Your task to perform on an android device: Check the weather Image 0: 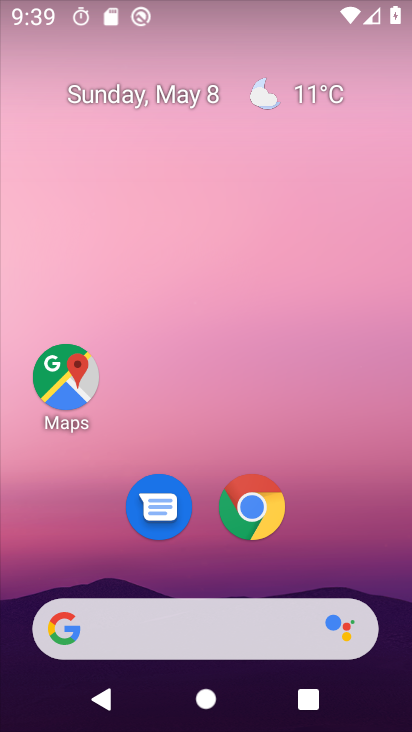
Step 0: click (307, 95)
Your task to perform on an android device: Check the weather Image 1: 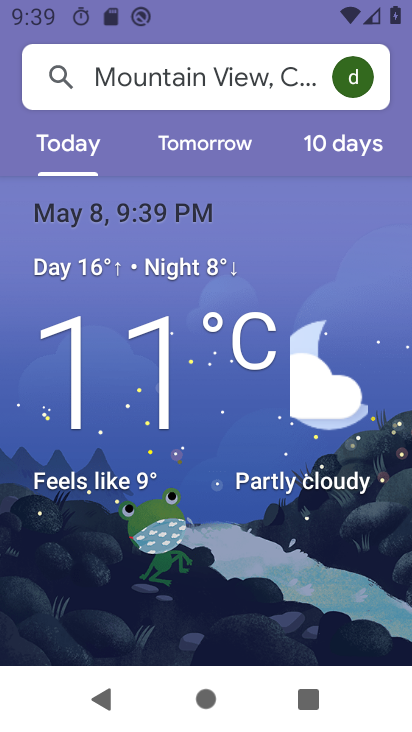
Step 1: task complete